Your task to perform on an android device: toggle pop-ups in chrome Image 0: 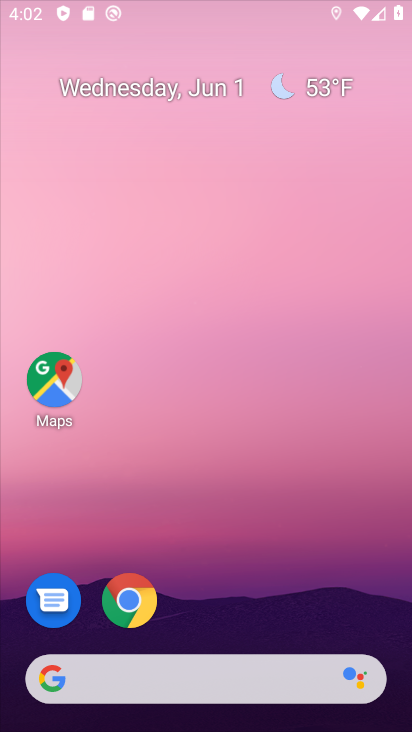
Step 0: drag from (280, 687) to (178, 176)
Your task to perform on an android device: toggle pop-ups in chrome Image 1: 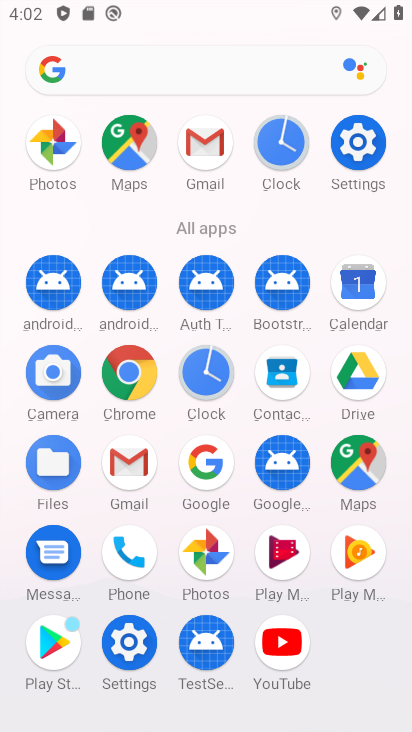
Step 1: click (119, 373)
Your task to perform on an android device: toggle pop-ups in chrome Image 2: 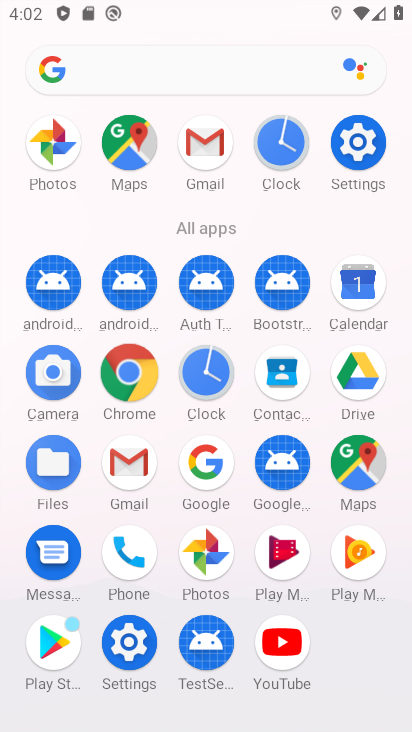
Step 2: click (119, 373)
Your task to perform on an android device: toggle pop-ups in chrome Image 3: 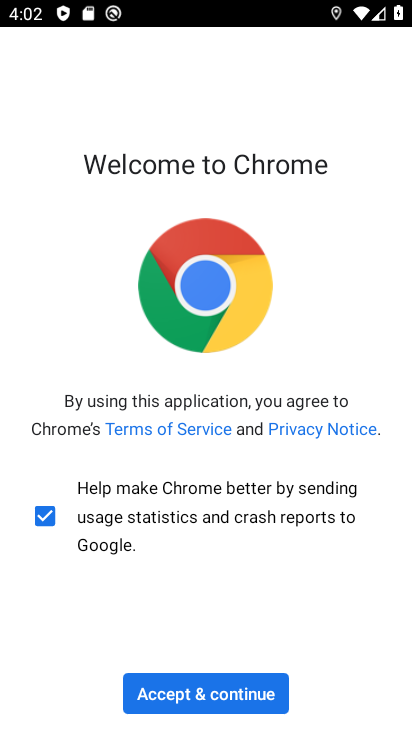
Step 3: click (204, 700)
Your task to perform on an android device: toggle pop-ups in chrome Image 4: 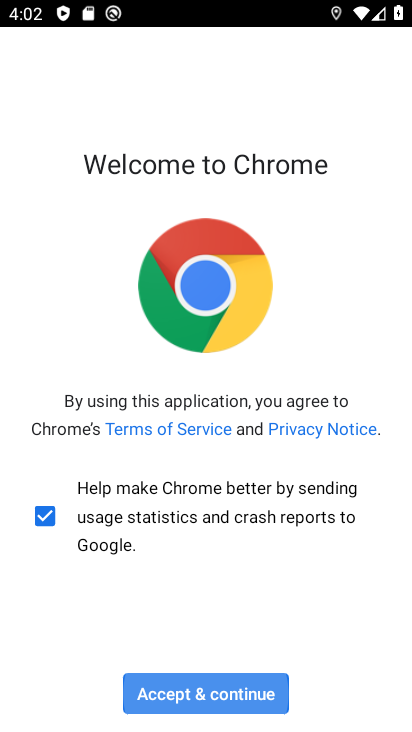
Step 4: click (204, 700)
Your task to perform on an android device: toggle pop-ups in chrome Image 5: 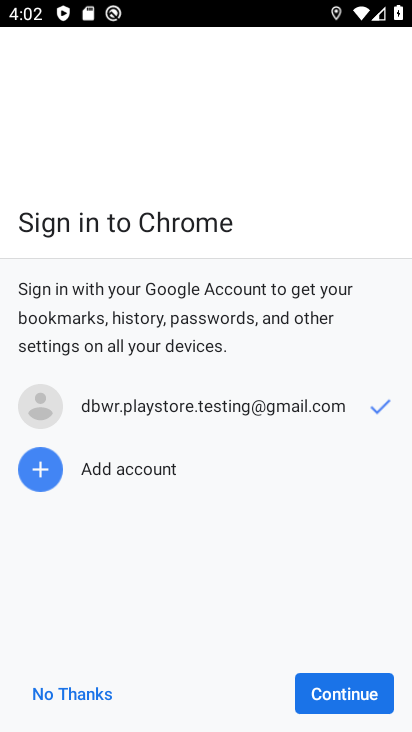
Step 5: click (339, 694)
Your task to perform on an android device: toggle pop-ups in chrome Image 6: 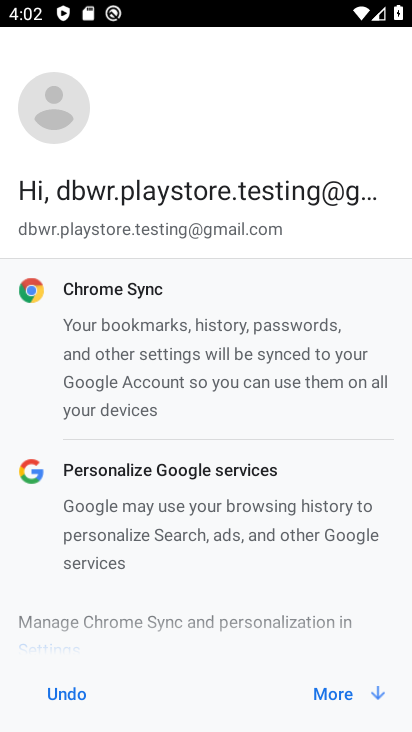
Step 6: click (352, 694)
Your task to perform on an android device: toggle pop-ups in chrome Image 7: 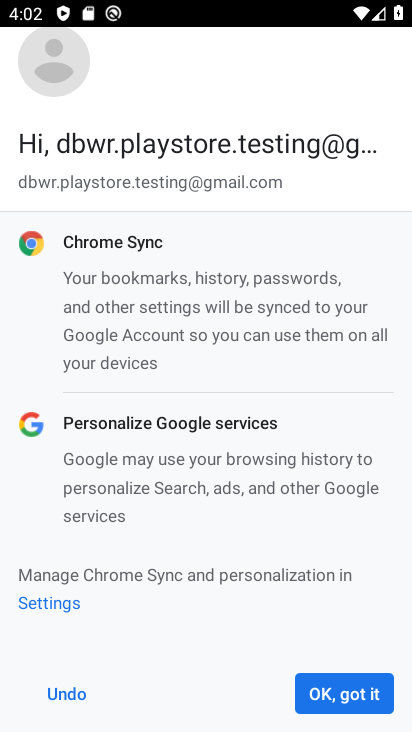
Step 7: click (363, 696)
Your task to perform on an android device: toggle pop-ups in chrome Image 8: 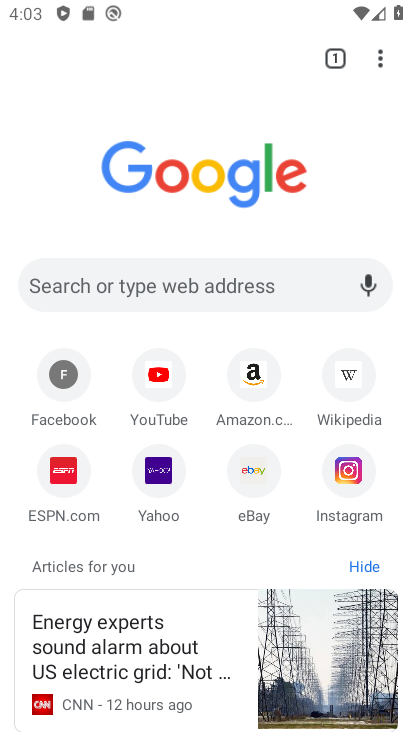
Step 8: drag from (379, 58) to (156, 501)
Your task to perform on an android device: toggle pop-ups in chrome Image 9: 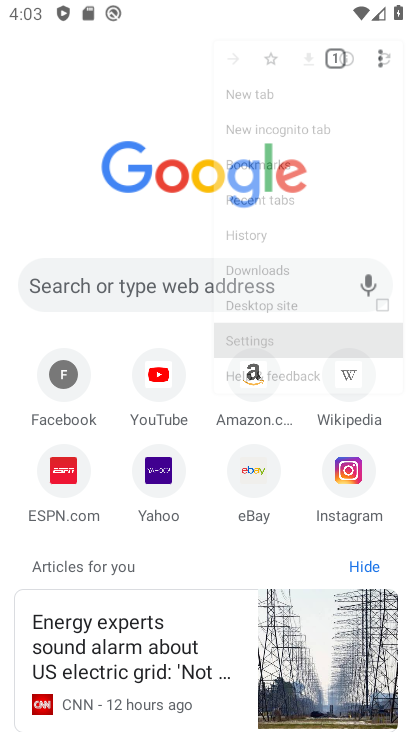
Step 9: click (154, 496)
Your task to perform on an android device: toggle pop-ups in chrome Image 10: 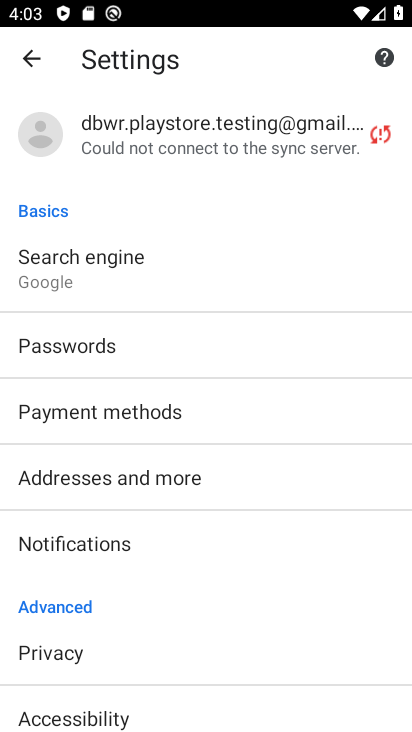
Step 10: drag from (173, 519) to (148, 95)
Your task to perform on an android device: toggle pop-ups in chrome Image 11: 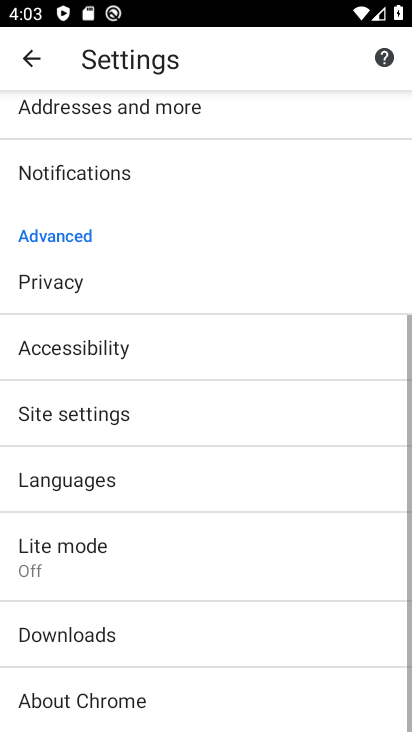
Step 11: drag from (201, 484) to (164, 163)
Your task to perform on an android device: toggle pop-ups in chrome Image 12: 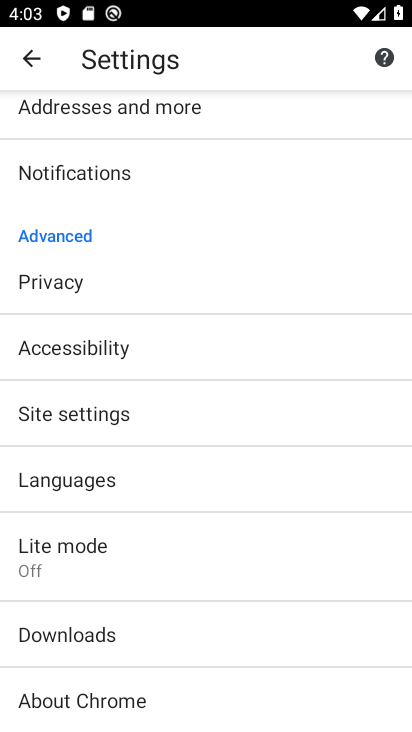
Step 12: click (70, 415)
Your task to perform on an android device: toggle pop-ups in chrome Image 13: 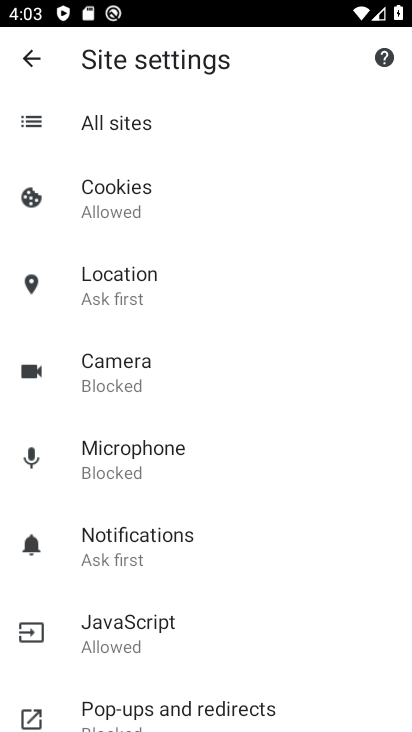
Step 13: drag from (161, 581) to (84, 210)
Your task to perform on an android device: toggle pop-ups in chrome Image 14: 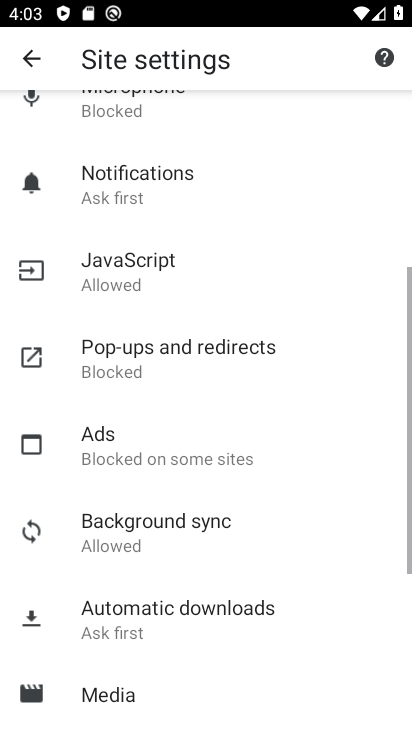
Step 14: drag from (179, 531) to (136, 290)
Your task to perform on an android device: toggle pop-ups in chrome Image 15: 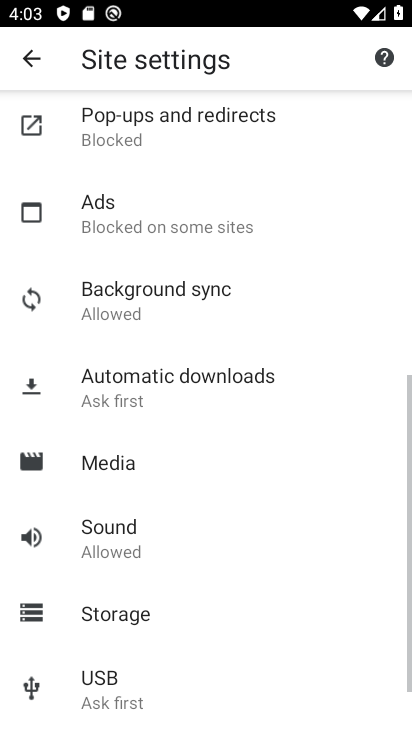
Step 15: click (112, 632)
Your task to perform on an android device: toggle pop-ups in chrome Image 16: 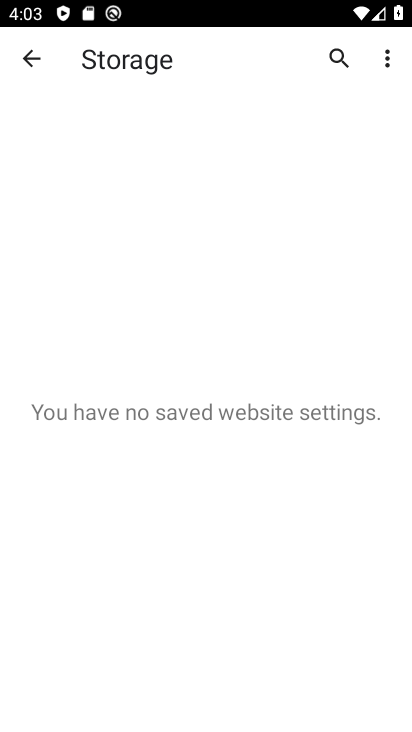
Step 16: click (29, 60)
Your task to perform on an android device: toggle pop-ups in chrome Image 17: 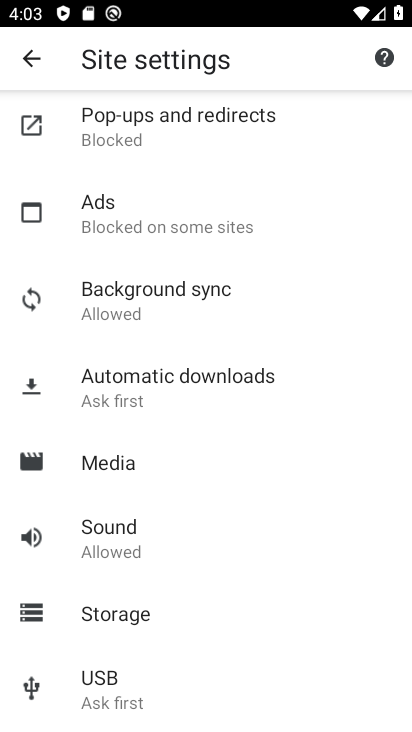
Step 17: click (100, 125)
Your task to perform on an android device: toggle pop-ups in chrome Image 18: 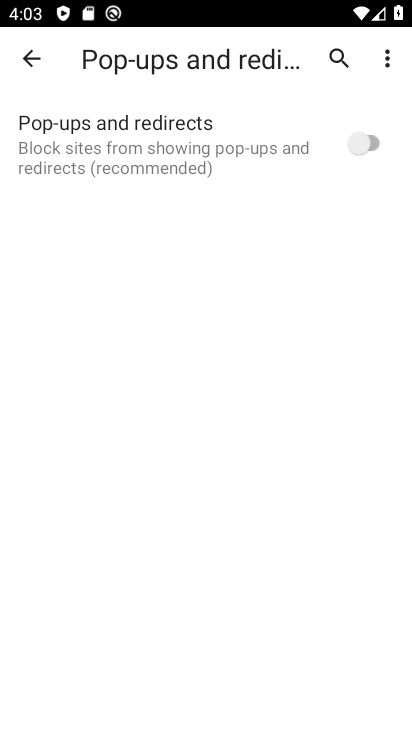
Step 18: click (356, 138)
Your task to perform on an android device: toggle pop-ups in chrome Image 19: 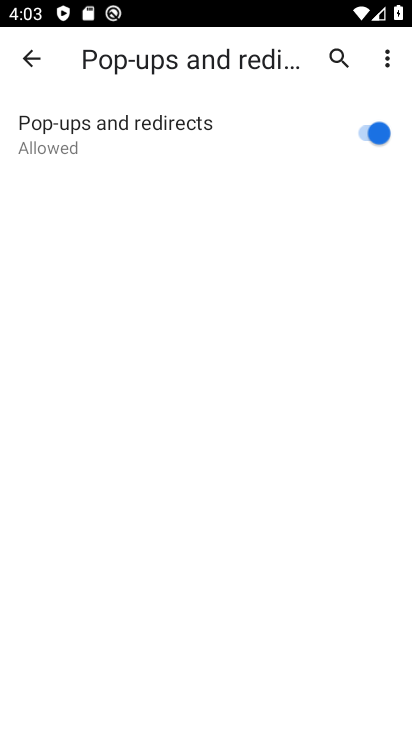
Step 19: task complete